Your task to perform on an android device: Open Yahoo.com Image 0: 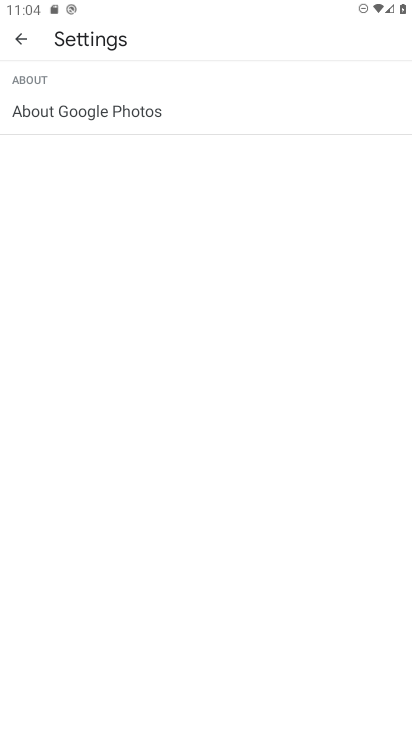
Step 0: press home button
Your task to perform on an android device: Open Yahoo.com Image 1: 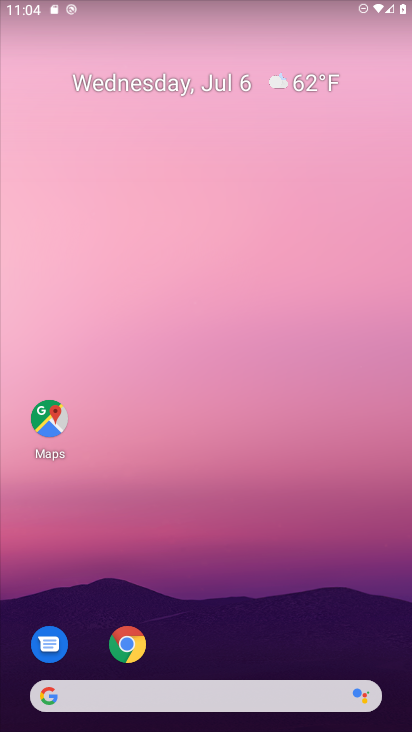
Step 1: click (51, 699)
Your task to perform on an android device: Open Yahoo.com Image 2: 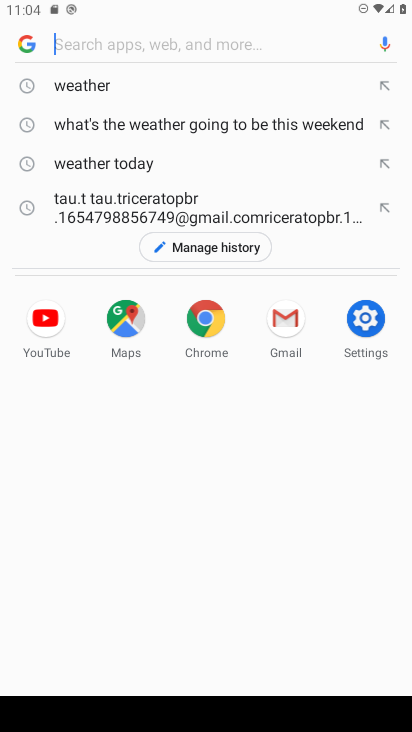
Step 2: click (233, 37)
Your task to perform on an android device: Open Yahoo.com Image 3: 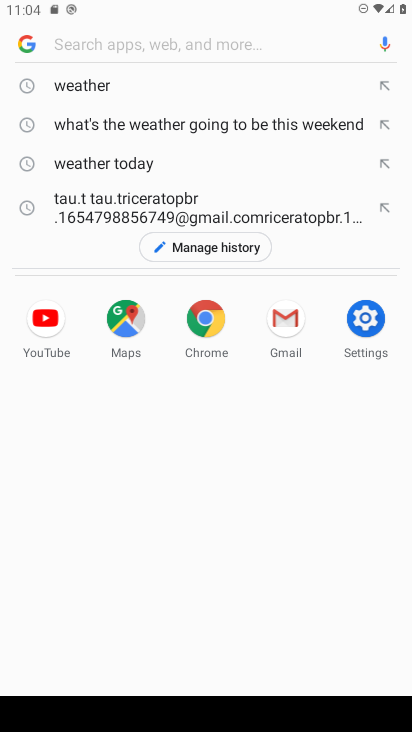
Step 3: type " Yahoo.com"
Your task to perform on an android device: Open Yahoo.com Image 4: 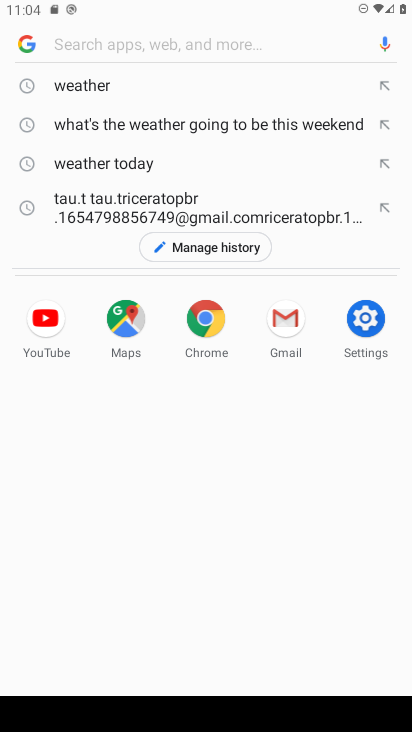
Step 4: click (120, 38)
Your task to perform on an android device: Open Yahoo.com Image 5: 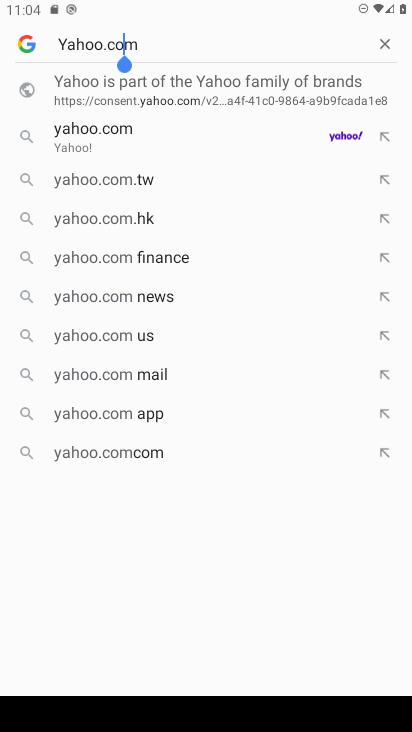
Step 5: click (111, 136)
Your task to perform on an android device: Open Yahoo.com Image 6: 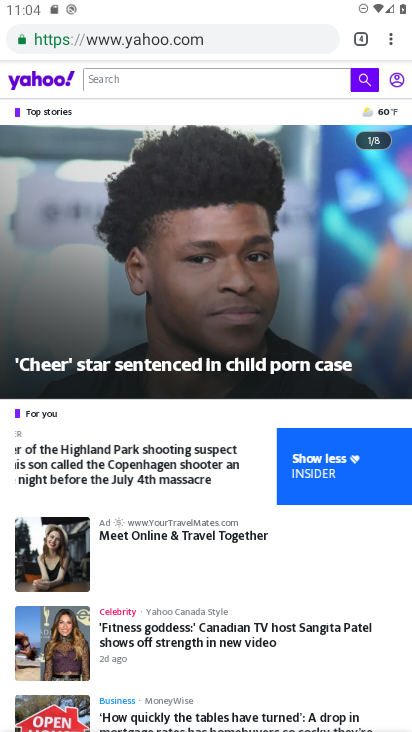
Step 6: task complete